Your task to perform on an android device: Open accessibility settings Image 0: 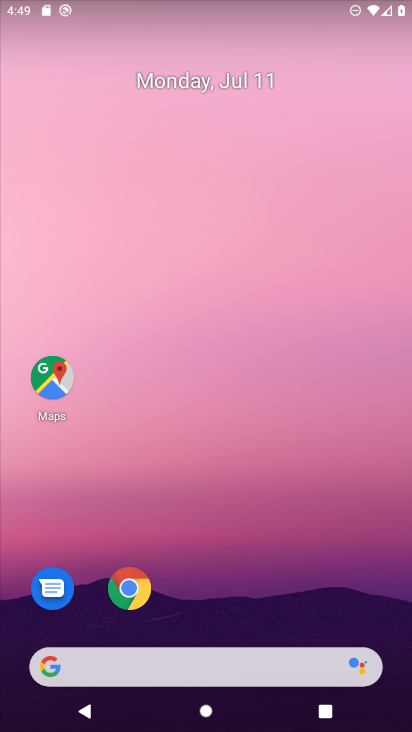
Step 0: press home button
Your task to perform on an android device: Open accessibility settings Image 1: 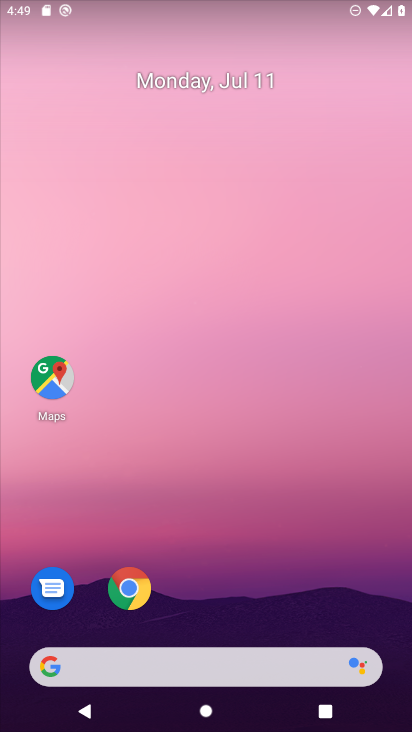
Step 1: drag from (214, 599) to (311, 64)
Your task to perform on an android device: Open accessibility settings Image 2: 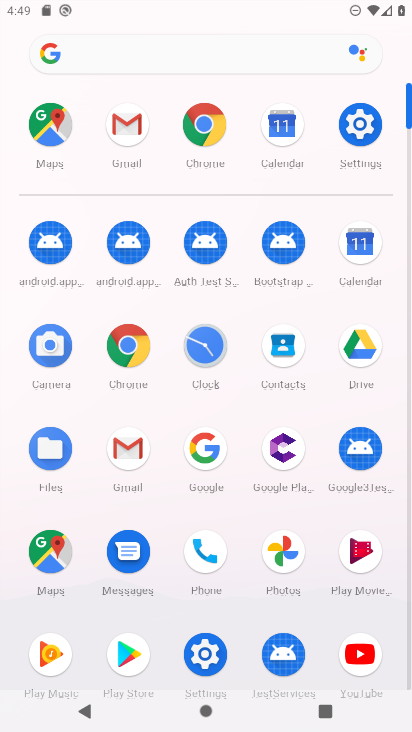
Step 2: click (361, 127)
Your task to perform on an android device: Open accessibility settings Image 3: 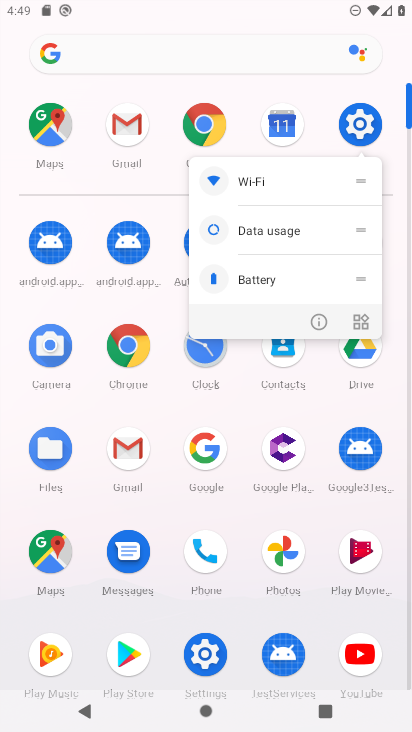
Step 3: click (361, 127)
Your task to perform on an android device: Open accessibility settings Image 4: 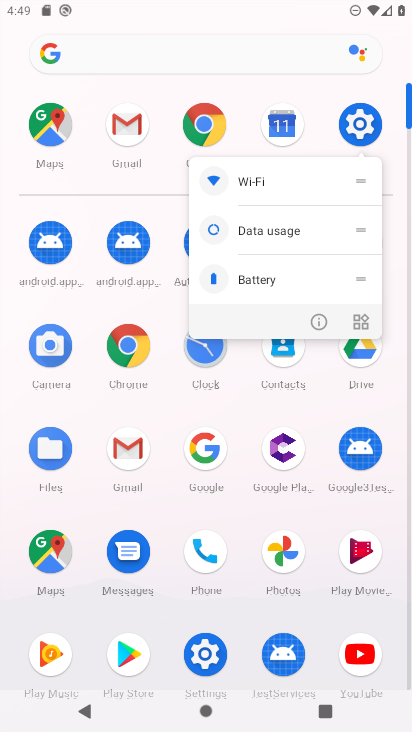
Step 4: click (361, 127)
Your task to perform on an android device: Open accessibility settings Image 5: 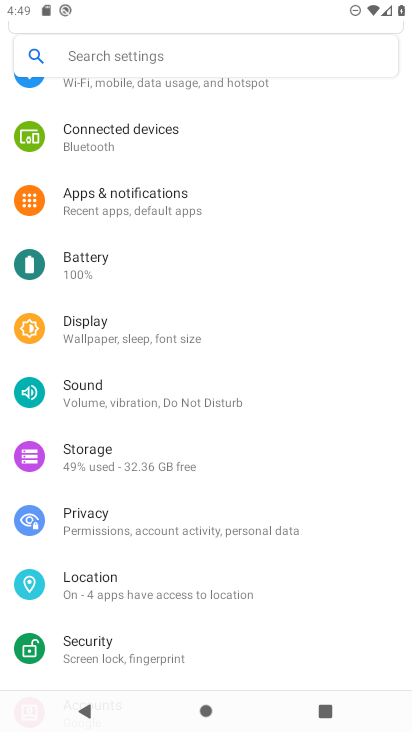
Step 5: drag from (337, 609) to (337, 175)
Your task to perform on an android device: Open accessibility settings Image 6: 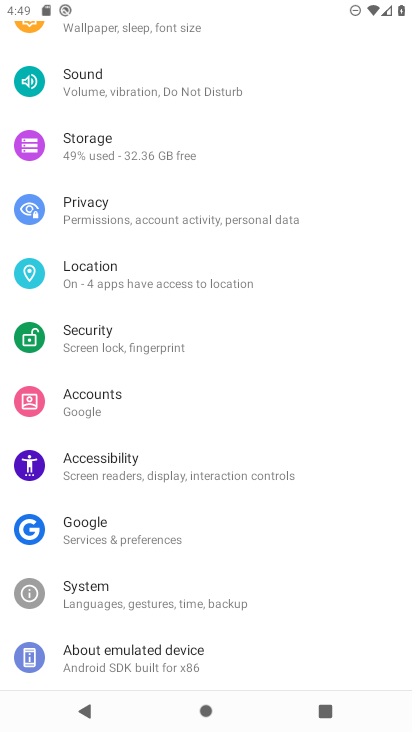
Step 6: click (93, 461)
Your task to perform on an android device: Open accessibility settings Image 7: 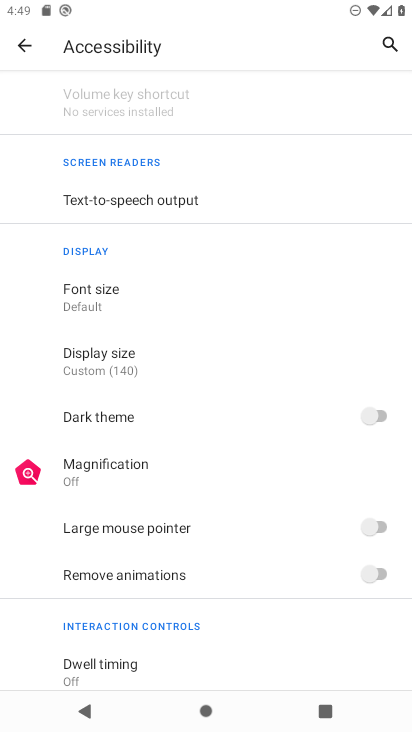
Step 7: task complete